Your task to perform on an android device: create a new album in the google photos Image 0: 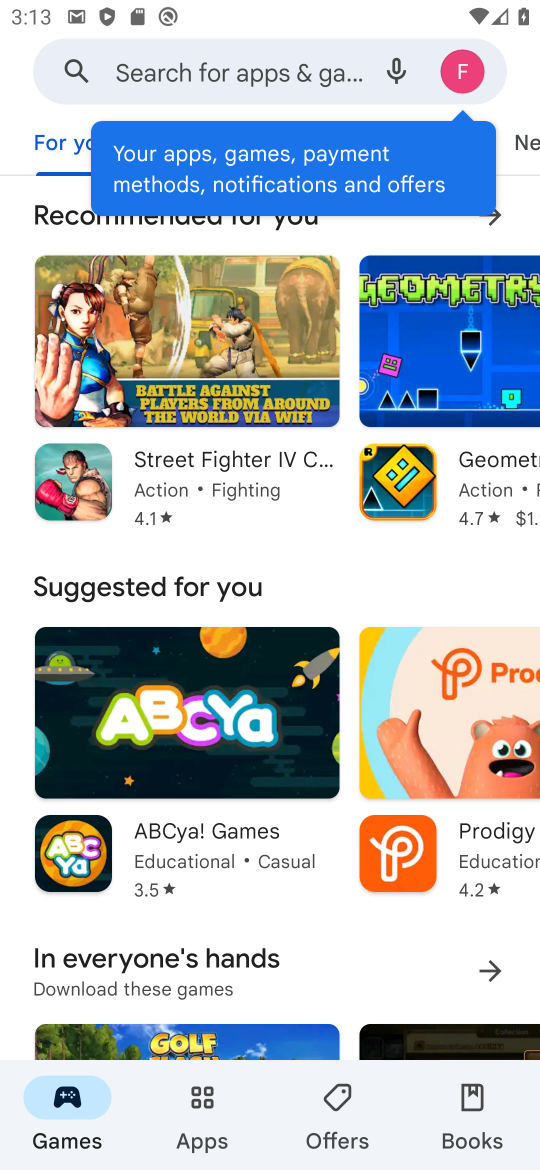
Step 0: press home button
Your task to perform on an android device: create a new album in the google photos Image 1: 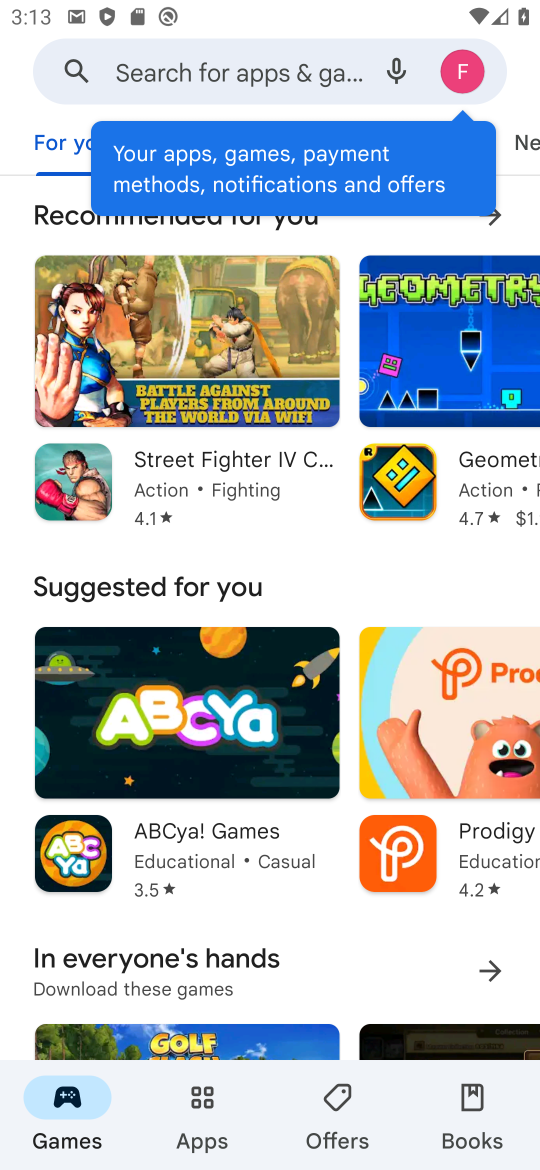
Step 1: press home button
Your task to perform on an android device: create a new album in the google photos Image 2: 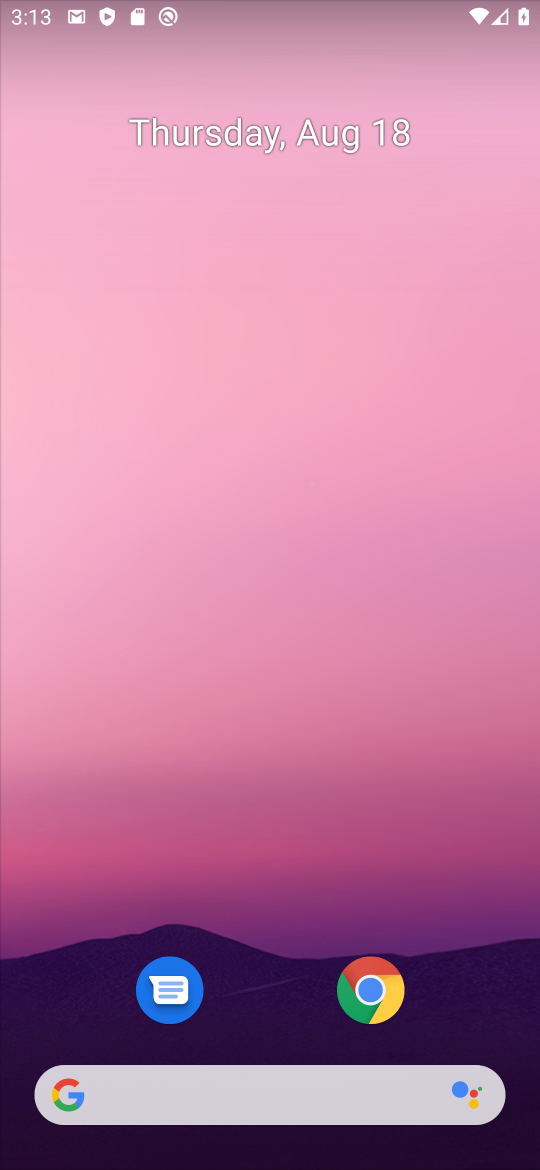
Step 2: drag from (231, 971) to (212, 133)
Your task to perform on an android device: create a new album in the google photos Image 3: 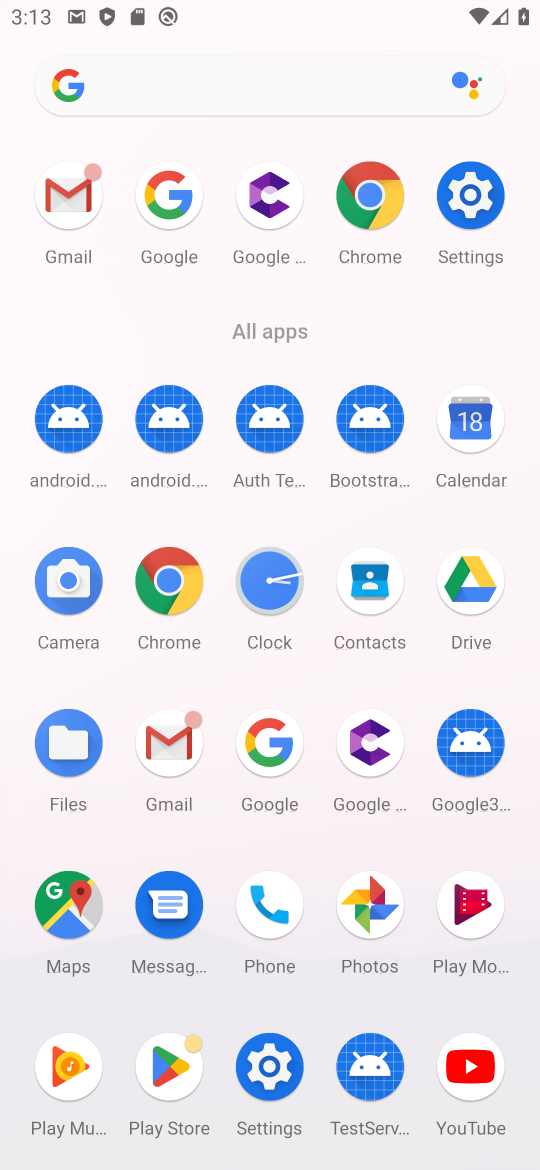
Step 3: click (380, 915)
Your task to perform on an android device: create a new album in the google photos Image 4: 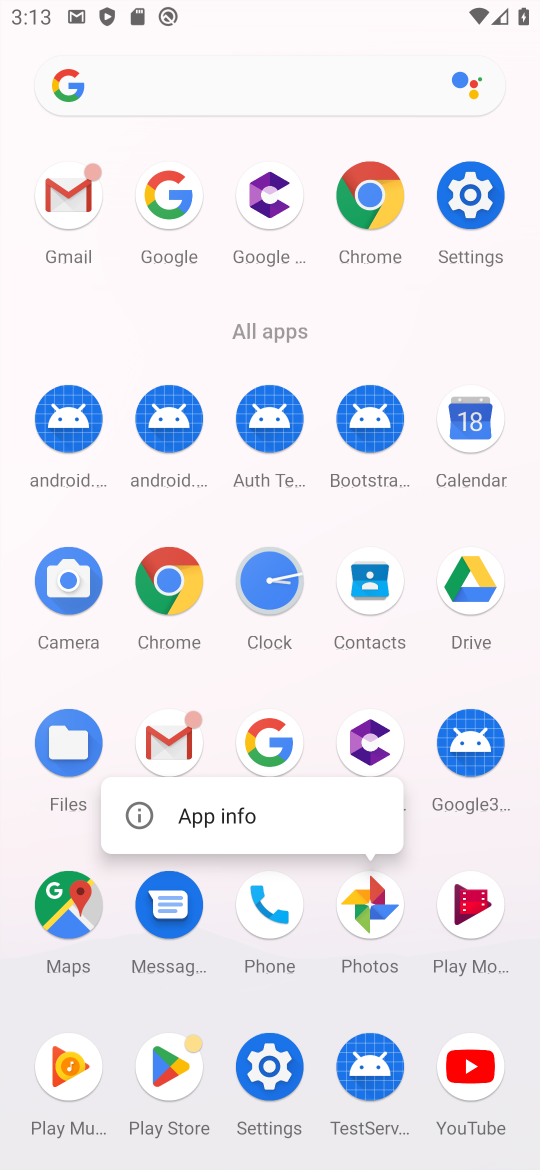
Step 4: click (368, 915)
Your task to perform on an android device: create a new album in the google photos Image 5: 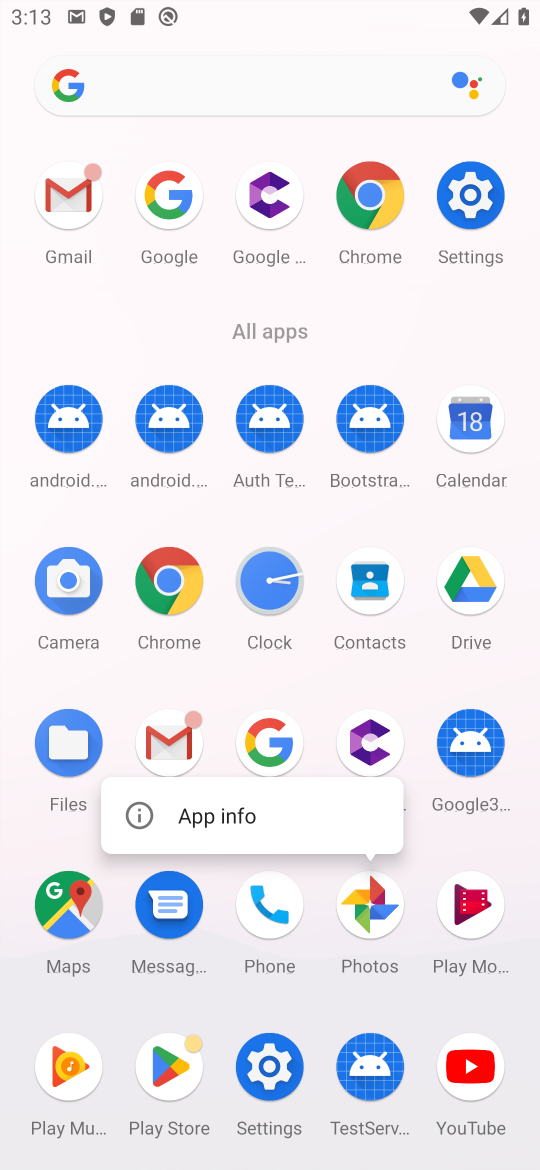
Step 5: click (368, 911)
Your task to perform on an android device: create a new album in the google photos Image 6: 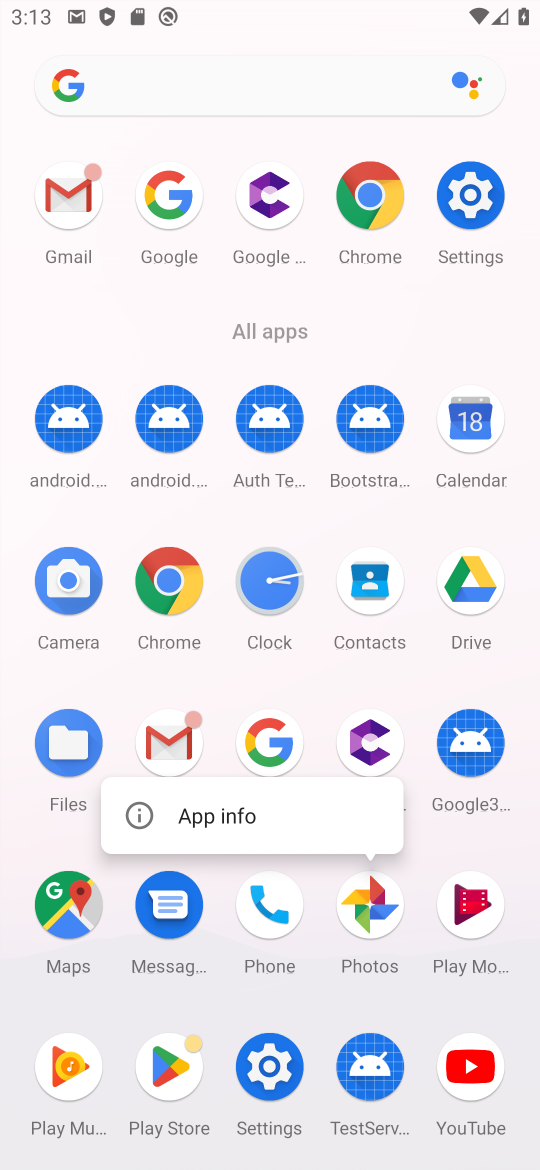
Step 6: click (368, 911)
Your task to perform on an android device: create a new album in the google photos Image 7: 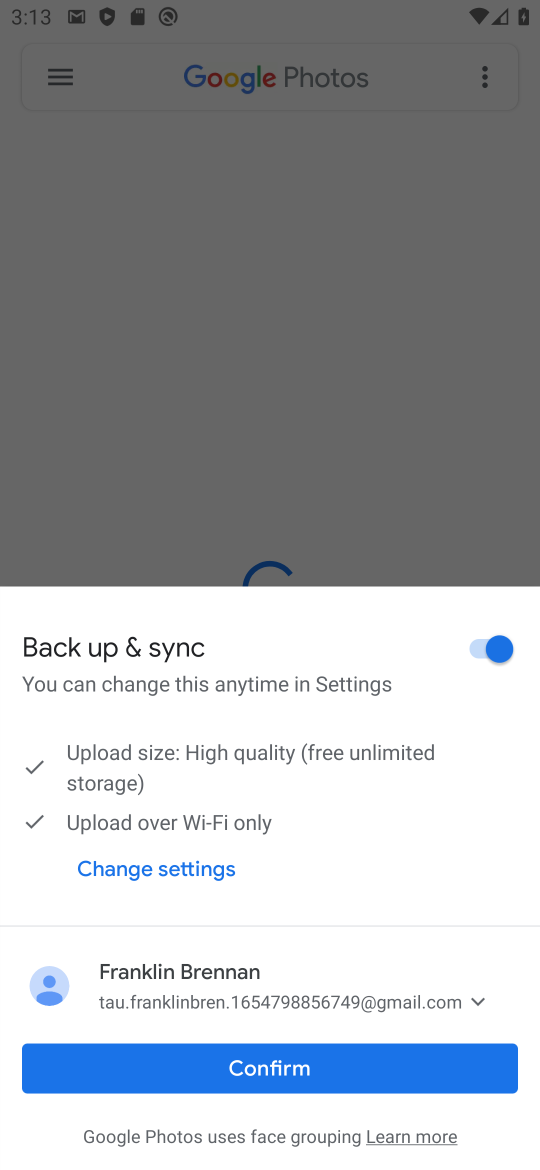
Step 7: click (283, 1064)
Your task to perform on an android device: create a new album in the google photos Image 8: 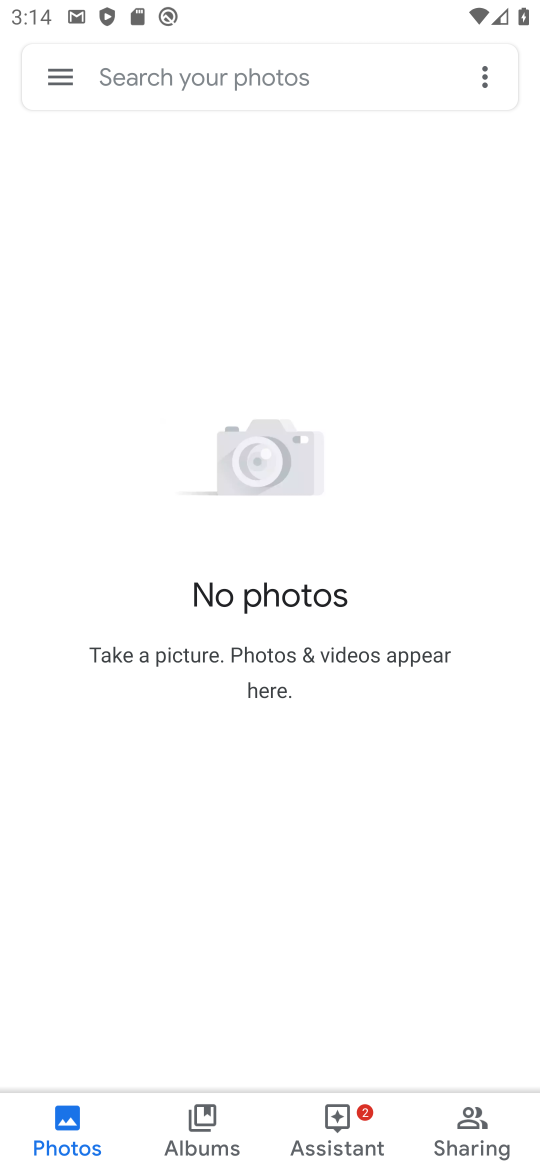
Step 8: click (463, 1117)
Your task to perform on an android device: create a new album in the google photos Image 9: 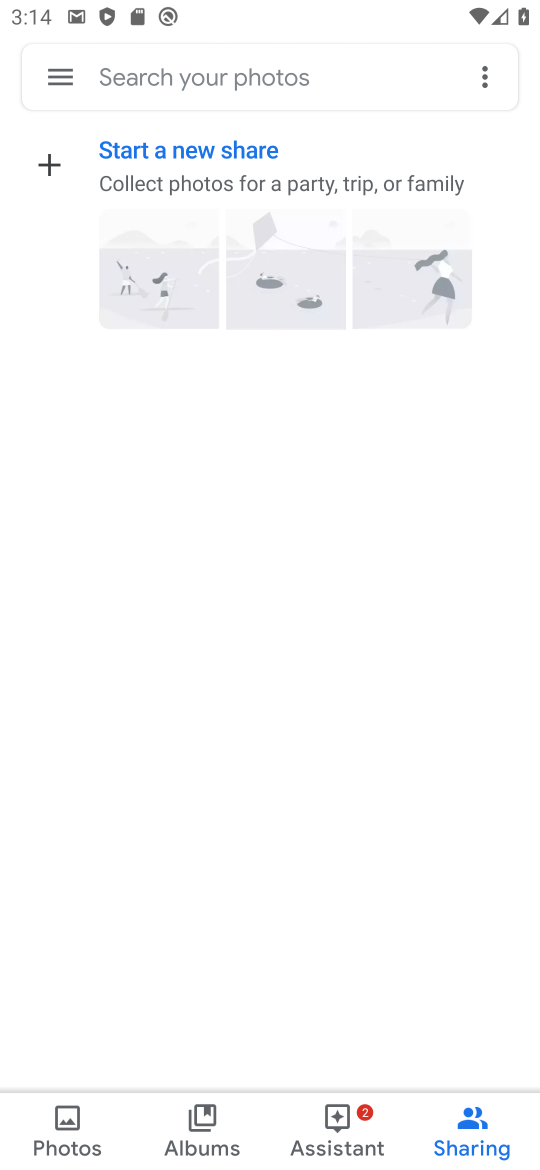
Step 9: click (339, 1104)
Your task to perform on an android device: create a new album in the google photos Image 10: 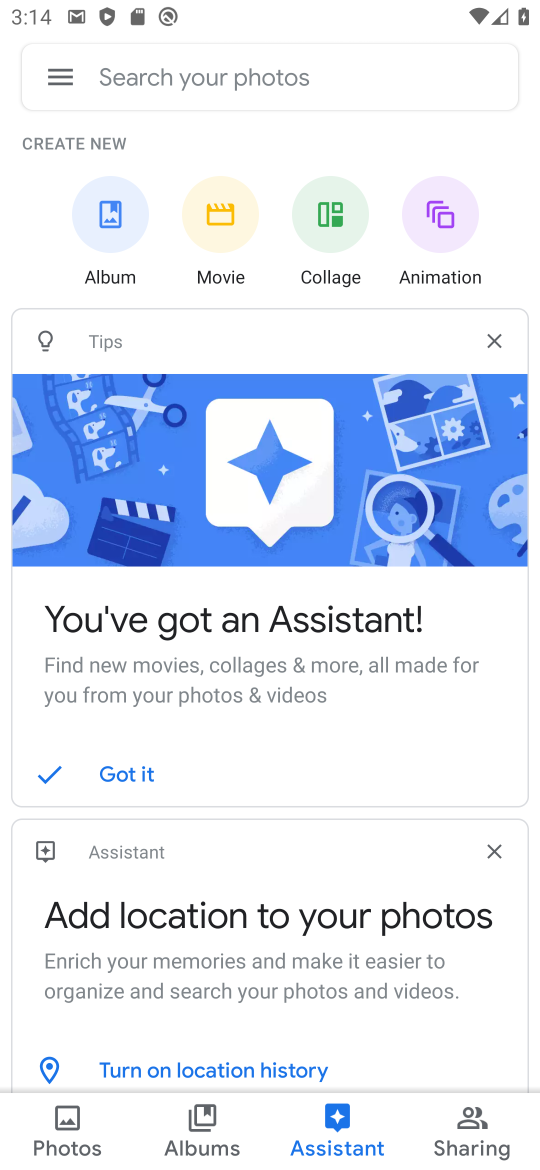
Step 10: click (110, 229)
Your task to perform on an android device: create a new album in the google photos Image 11: 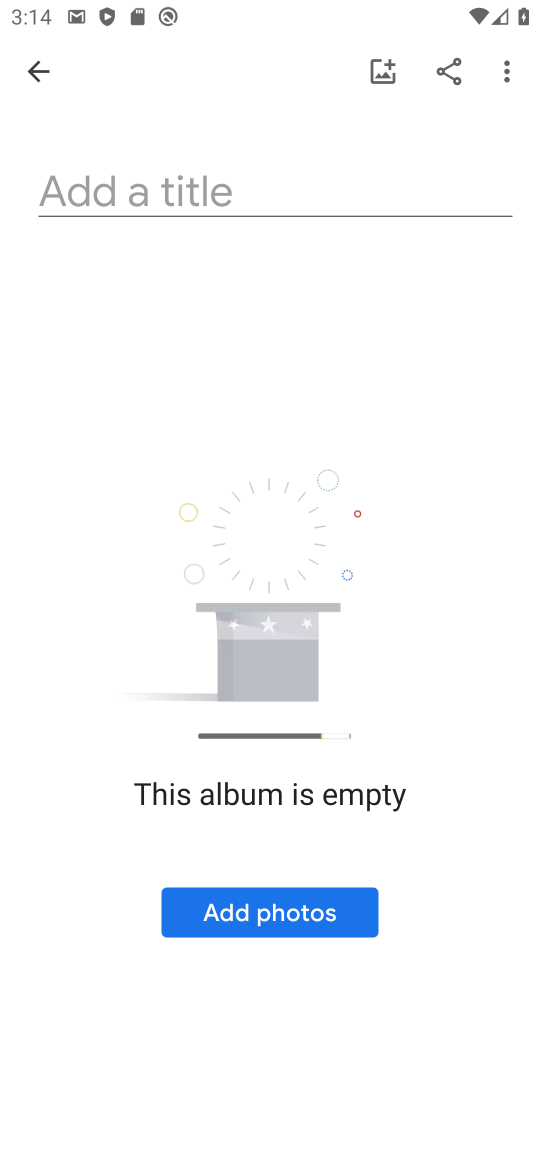
Step 11: click (163, 193)
Your task to perform on an android device: create a new album in the google photos Image 12: 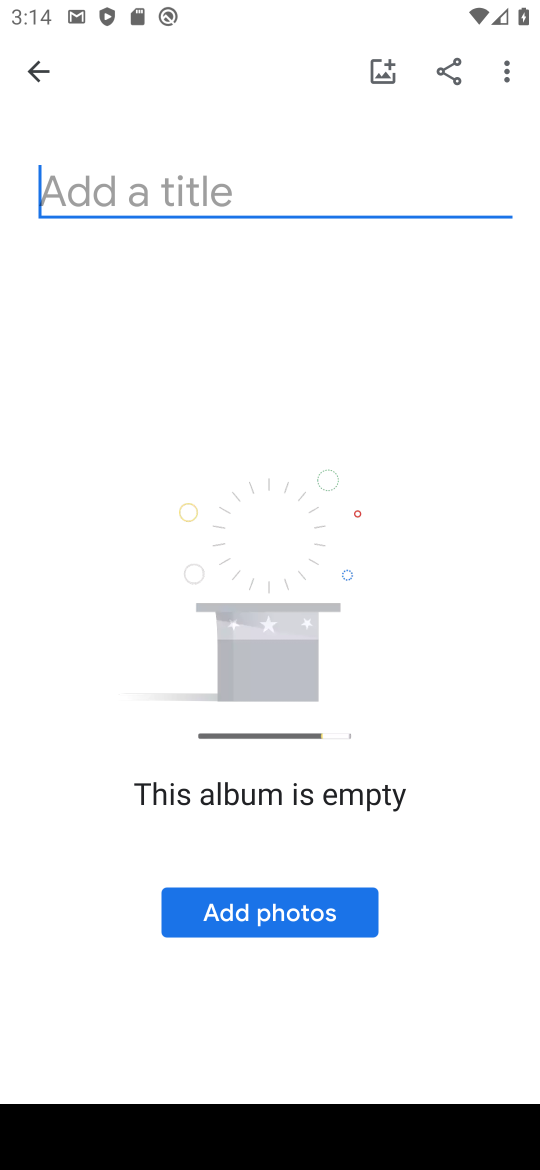
Step 12: type "pop"
Your task to perform on an android device: create a new album in the google photos Image 13: 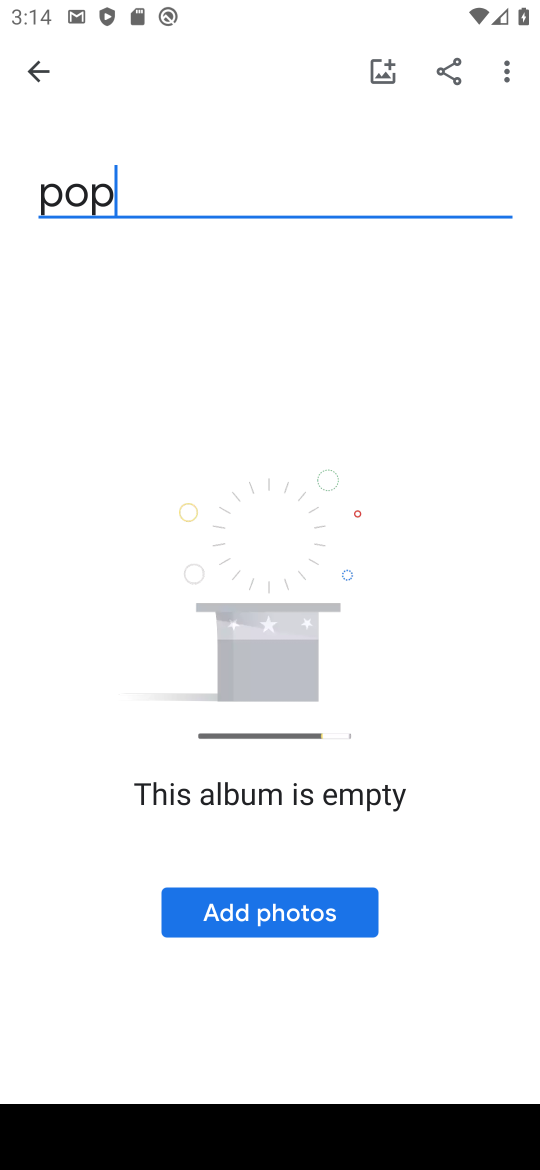
Step 13: type ""
Your task to perform on an android device: create a new album in the google photos Image 14: 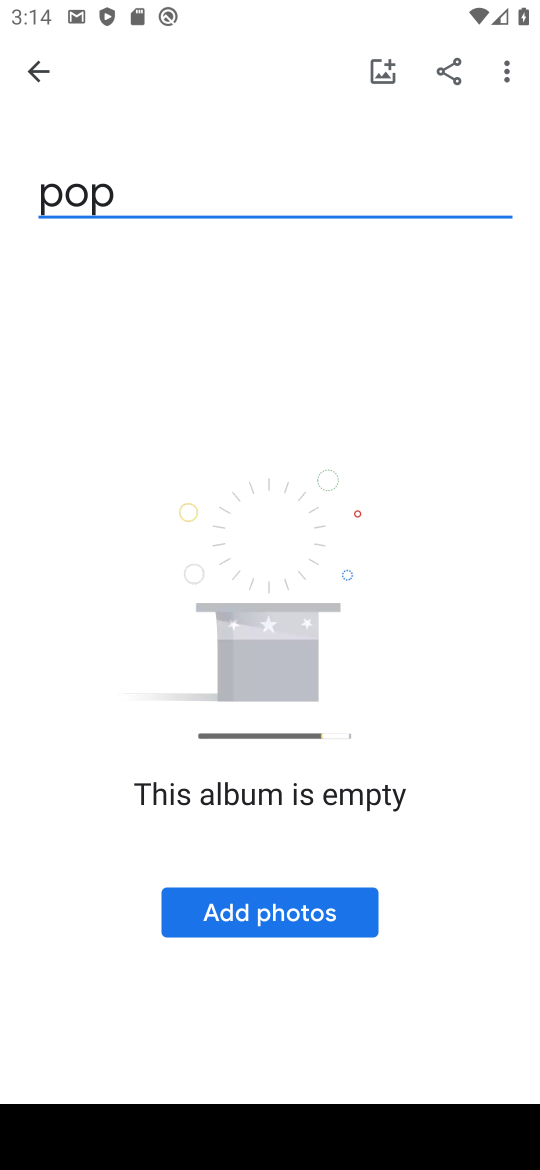
Step 14: task complete